Your task to perform on an android device: toggle sleep mode Image 0: 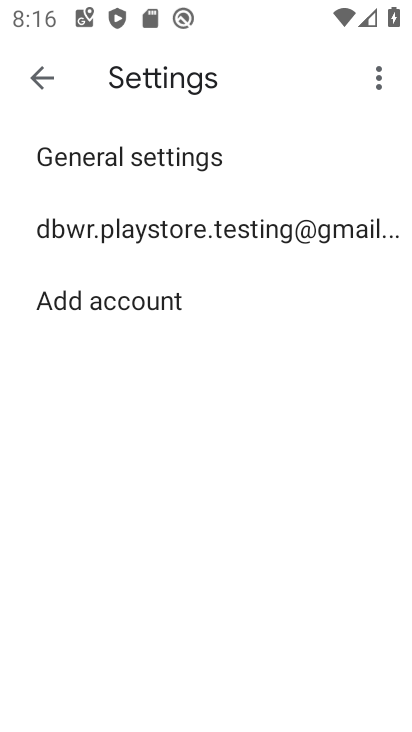
Step 0: press home button
Your task to perform on an android device: toggle sleep mode Image 1: 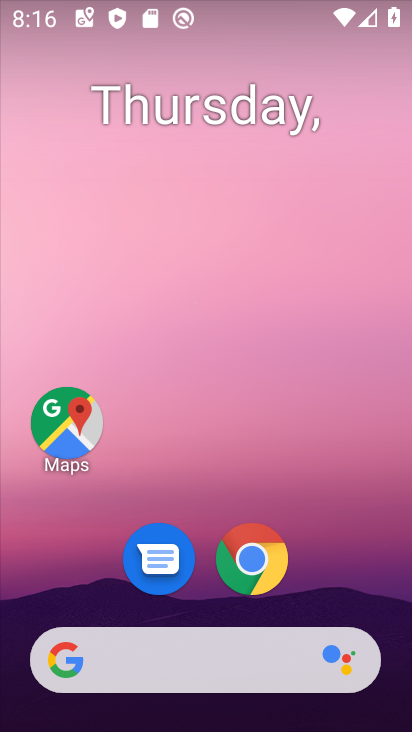
Step 1: drag from (194, 622) to (181, 7)
Your task to perform on an android device: toggle sleep mode Image 2: 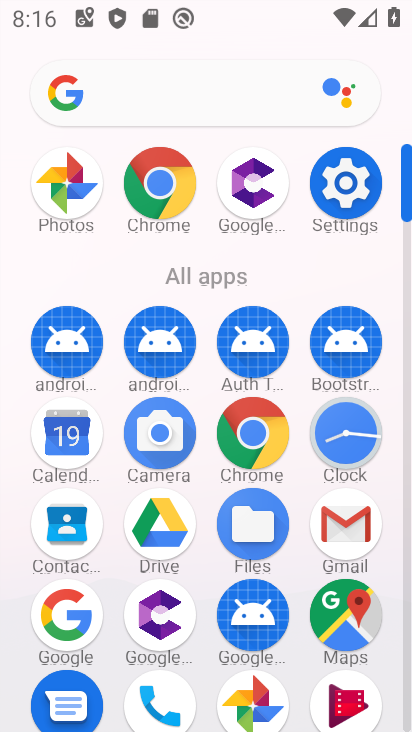
Step 2: click (355, 185)
Your task to perform on an android device: toggle sleep mode Image 3: 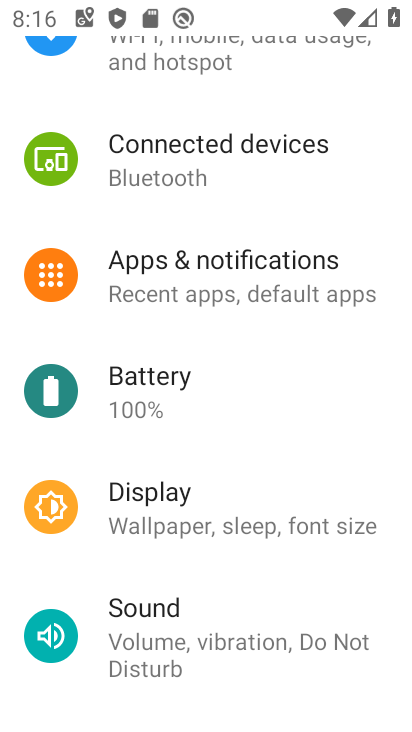
Step 3: click (148, 521)
Your task to perform on an android device: toggle sleep mode Image 4: 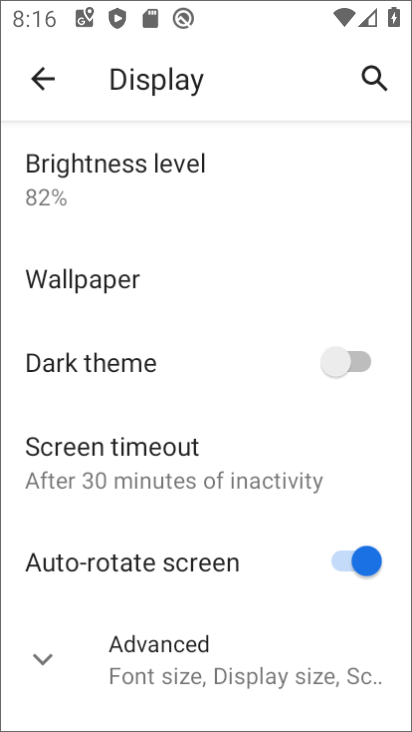
Step 4: task complete